Your task to perform on an android device: show emergency info Image 0: 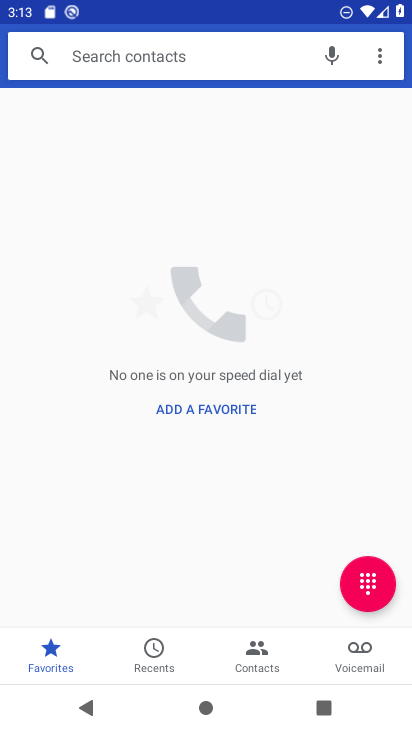
Step 0: press home button
Your task to perform on an android device: show emergency info Image 1: 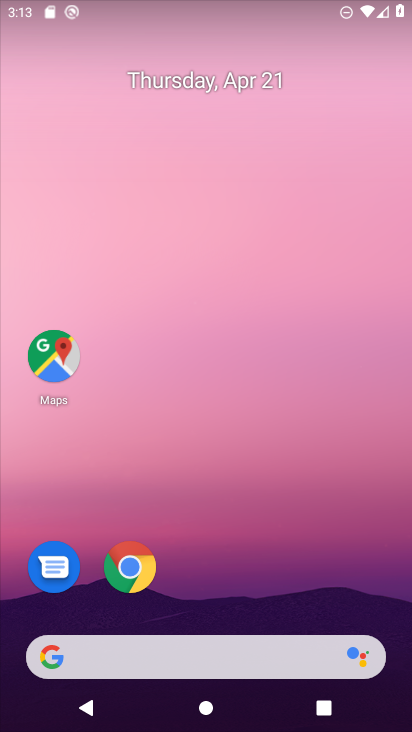
Step 1: drag from (221, 548) to (221, 98)
Your task to perform on an android device: show emergency info Image 2: 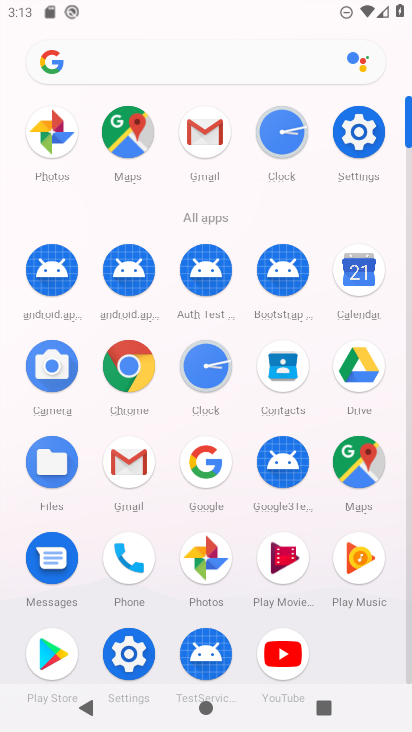
Step 2: click (128, 647)
Your task to perform on an android device: show emergency info Image 3: 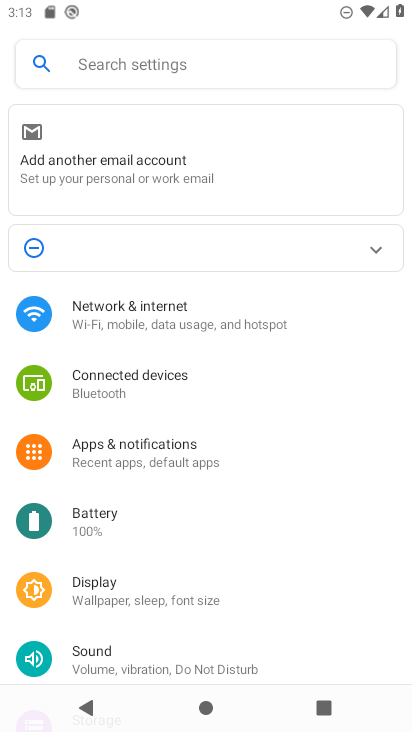
Step 3: drag from (184, 659) to (188, 287)
Your task to perform on an android device: show emergency info Image 4: 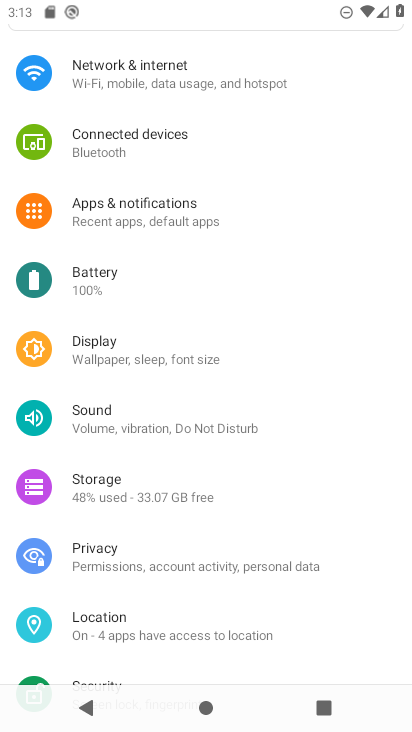
Step 4: drag from (195, 641) to (212, 164)
Your task to perform on an android device: show emergency info Image 5: 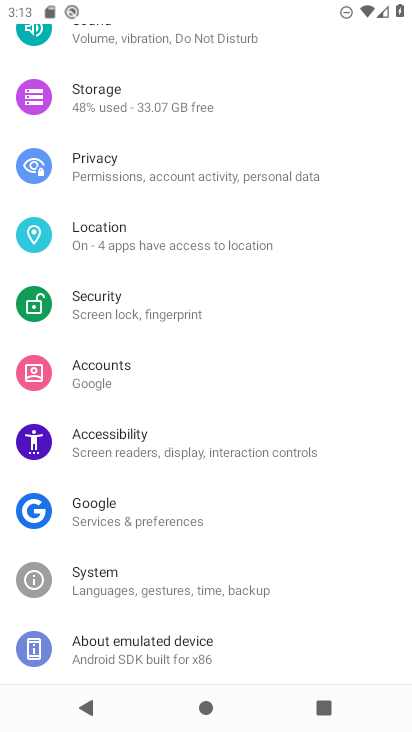
Step 5: click (183, 664)
Your task to perform on an android device: show emergency info Image 6: 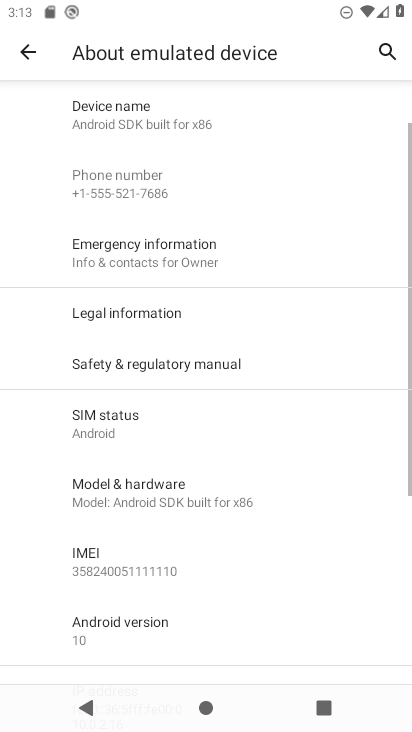
Step 6: click (219, 267)
Your task to perform on an android device: show emergency info Image 7: 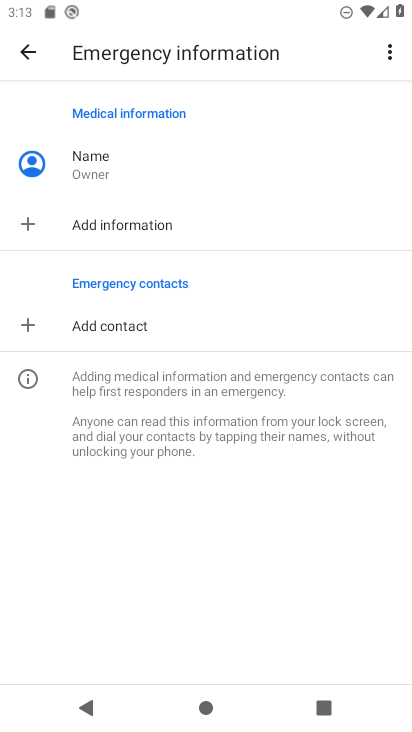
Step 7: task complete